Your task to perform on an android device: Open Chrome and go to settings Image 0: 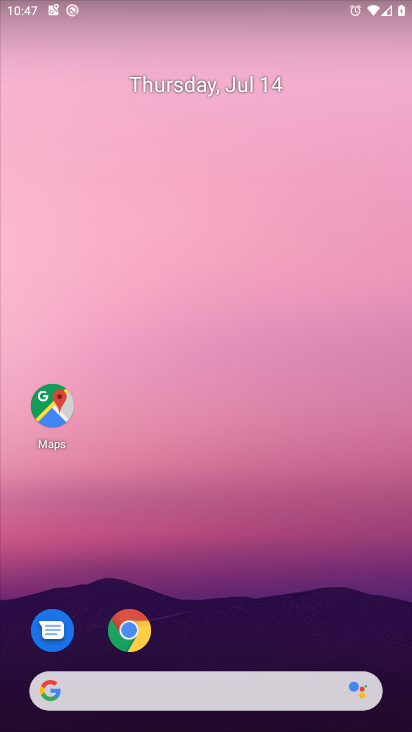
Step 0: click (122, 624)
Your task to perform on an android device: Open Chrome and go to settings Image 1: 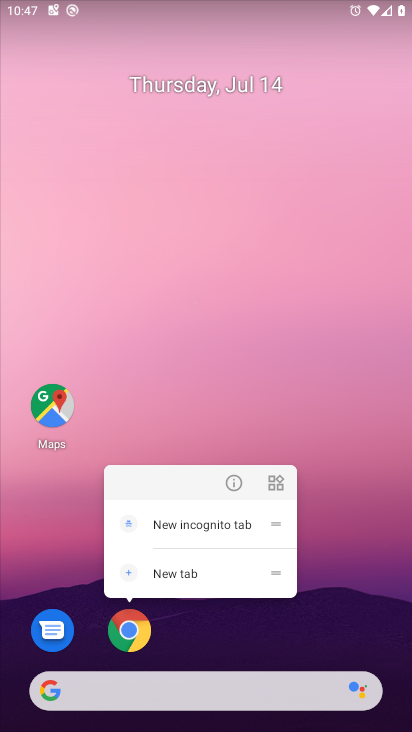
Step 1: click (126, 634)
Your task to perform on an android device: Open Chrome and go to settings Image 2: 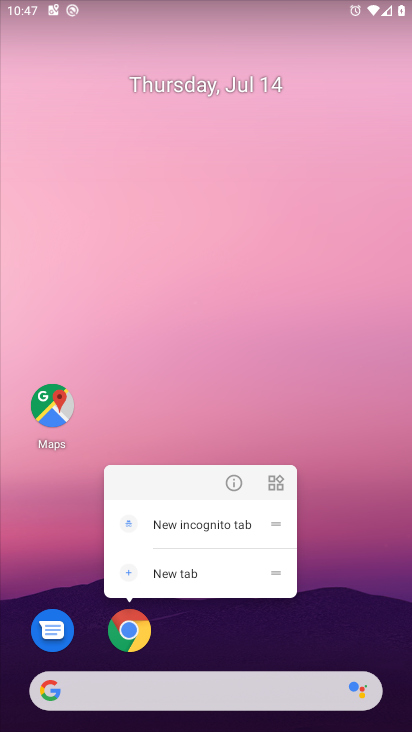
Step 2: click (125, 633)
Your task to perform on an android device: Open Chrome and go to settings Image 3: 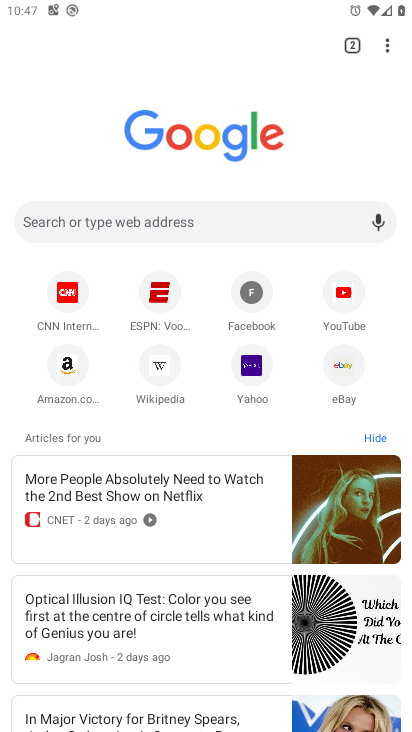
Step 3: click (386, 46)
Your task to perform on an android device: Open Chrome and go to settings Image 4: 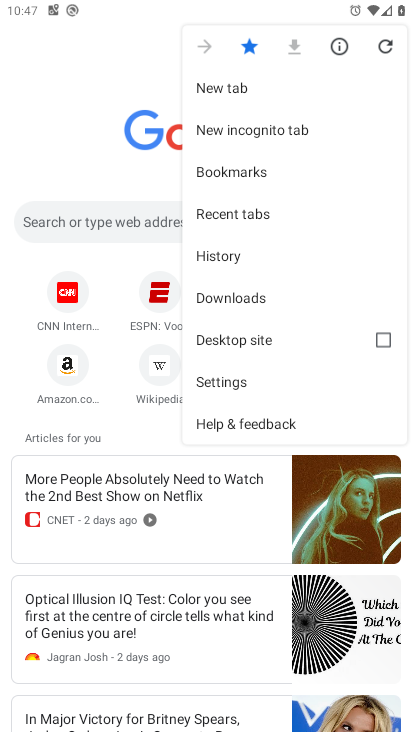
Step 4: click (237, 386)
Your task to perform on an android device: Open Chrome and go to settings Image 5: 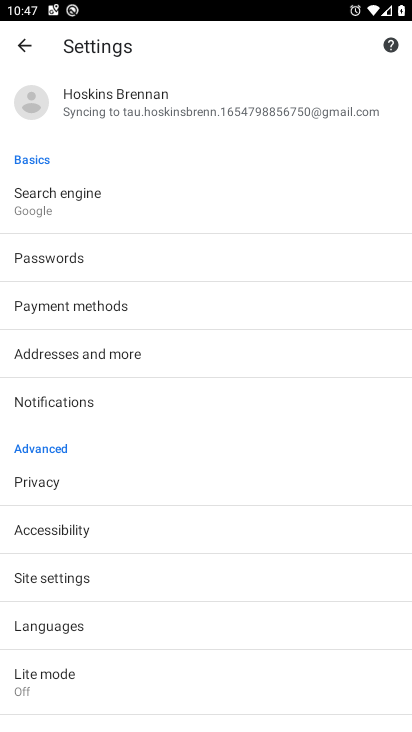
Step 5: task complete